Your task to perform on an android device: Open location settings Image 0: 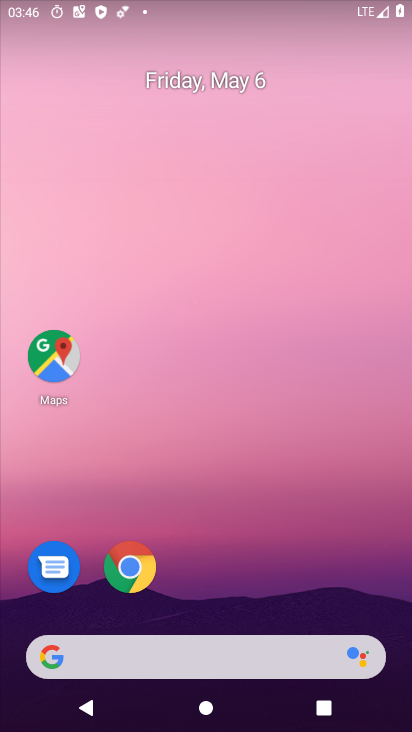
Step 0: drag from (213, 291) to (225, 255)
Your task to perform on an android device: Open location settings Image 1: 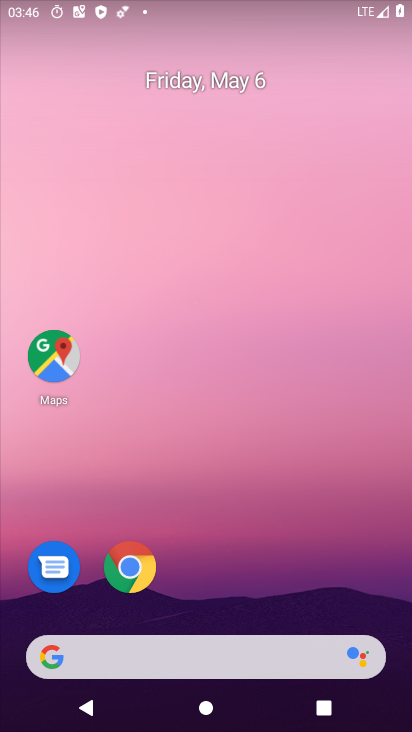
Step 1: drag from (161, 453) to (172, 176)
Your task to perform on an android device: Open location settings Image 2: 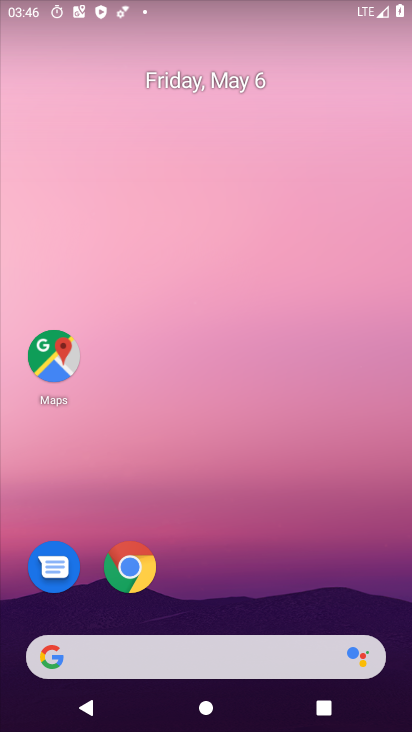
Step 2: drag from (183, 462) to (211, 93)
Your task to perform on an android device: Open location settings Image 3: 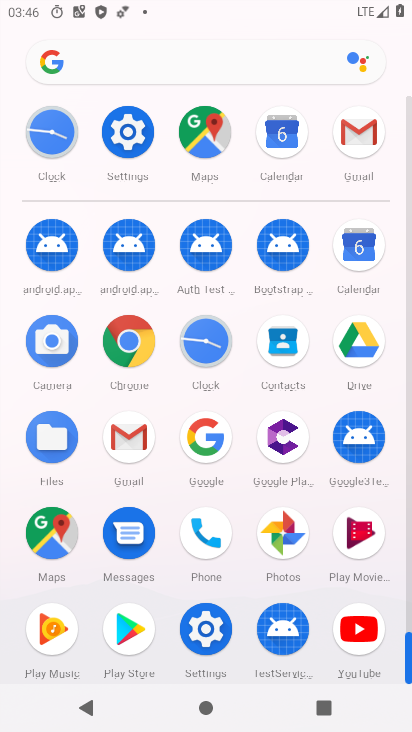
Step 3: click (207, 627)
Your task to perform on an android device: Open location settings Image 4: 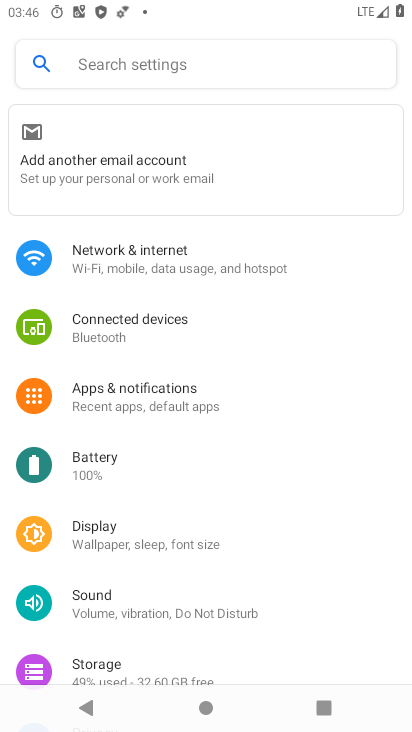
Step 4: drag from (158, 481) to (226, 195)
Your task to perform on an android device: Open location settings Image 5: 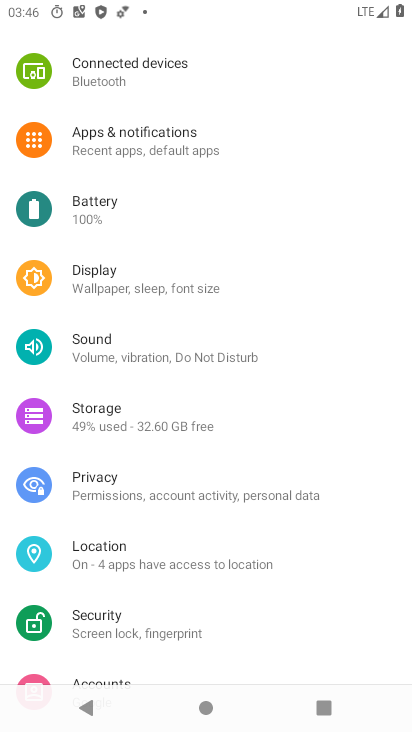
Step 5: click (131, 564)
Your task to perform on an android device: Open location settings Image 6: 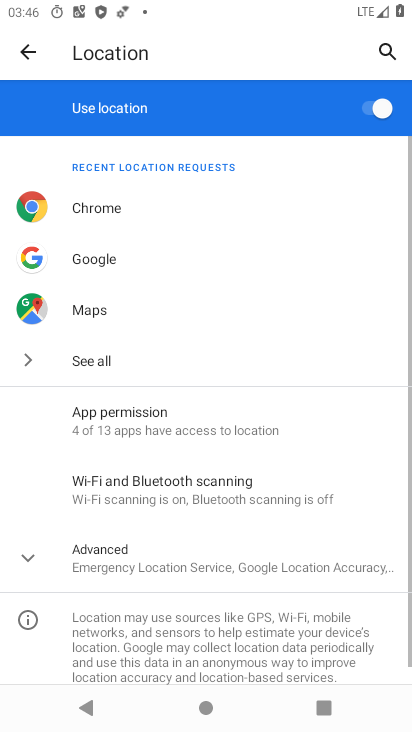
Step 6: task complete